Your task to perform on an android device: turn notification dots on Image 0: 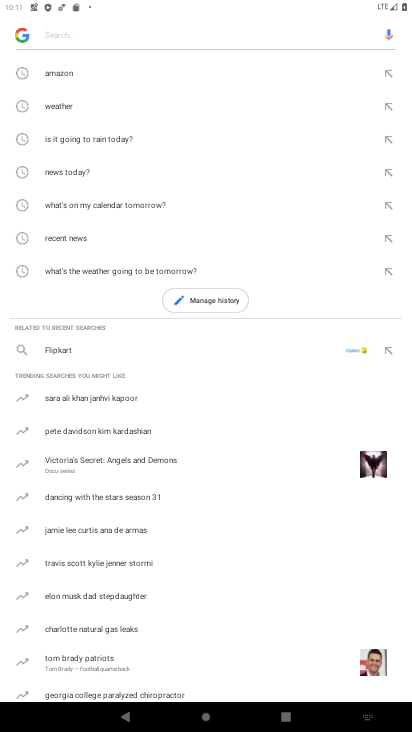
Step 0: press home button
Your task to perform on an android device: turn notification dots on Image 1: 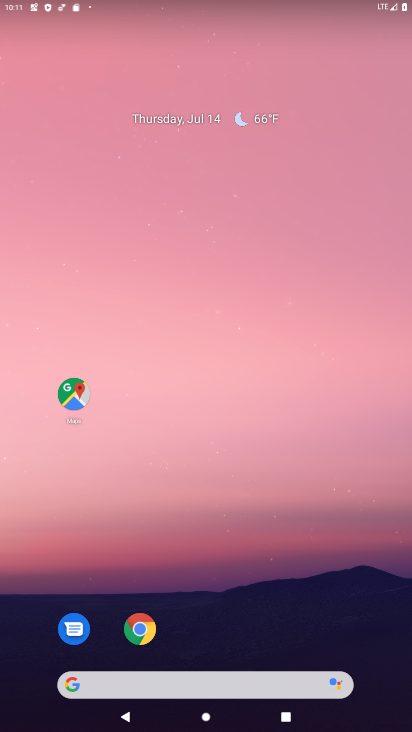
Step 1: drag from (231, 592) to (262, 124)
Your task to perform on an android device: turn notification dots on Image 2: 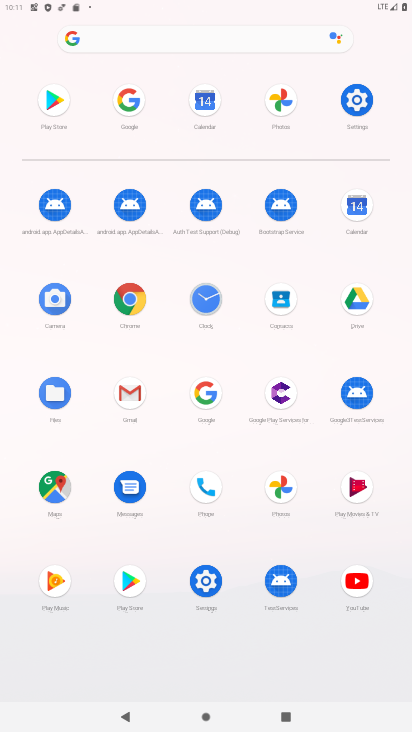
Step 2: click (355, 101)
Your task to perform on an android device: turn notification dots on Image 3: 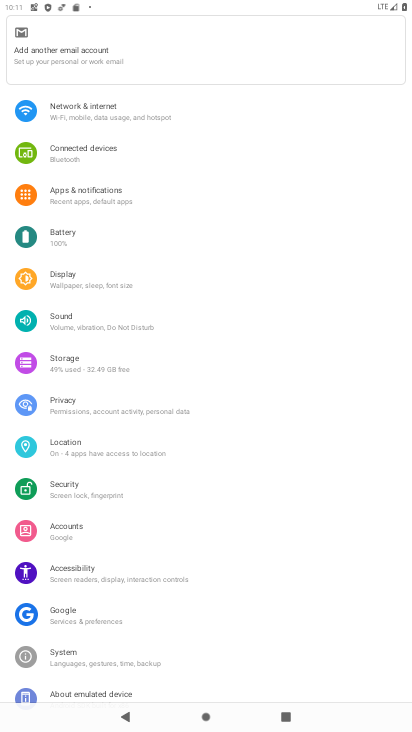
Step 3: click (94, 200)
Your task to perform on an android device: turn notification dots on Image 4: 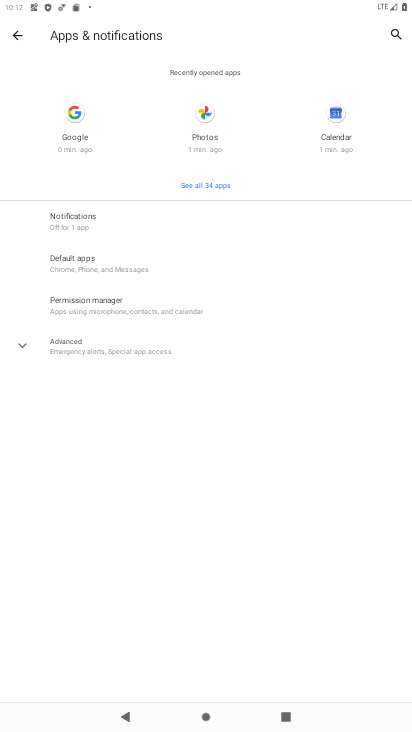
Step 4: click (27, 343)
Your task to perform on an android device: turn notification dots on Image 5: 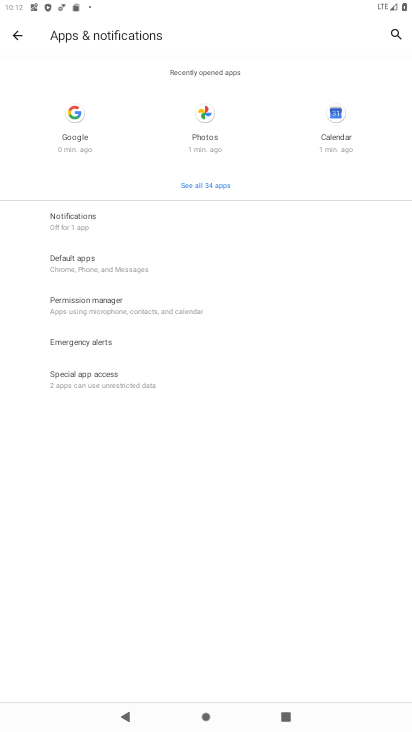
Step 5: click (74, 219)
Your task to perform on an android device: turn notification dots on Image 6: 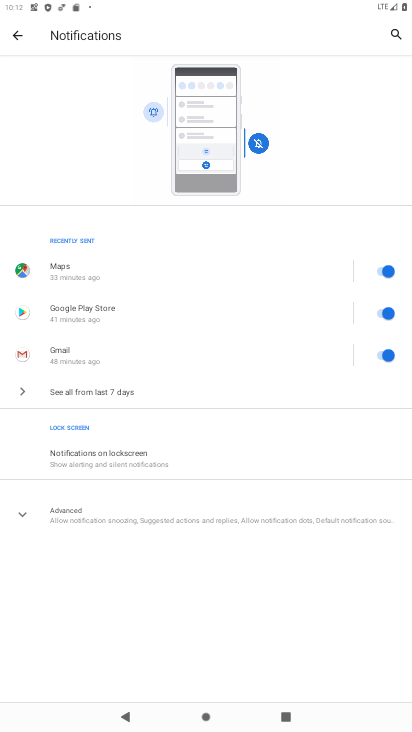
Step 6: click (23, 511)
Your task to perform on an android device: turn notification dots on Image 7: 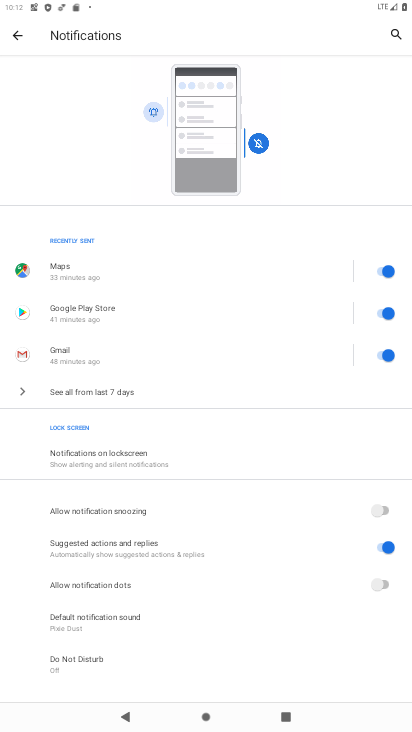
Step 7: click (382, 581)
Your task to perform on an android device: turn notification dots on Image 8: 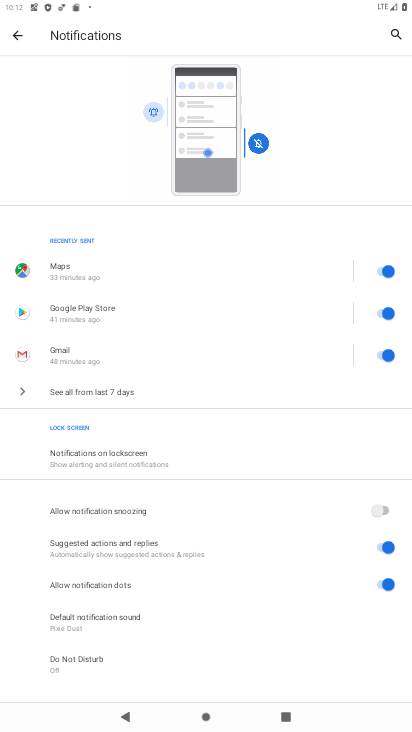
Step 8: task complete